Your task to perform on an android device: turn off translation in the chrome app Image 0: 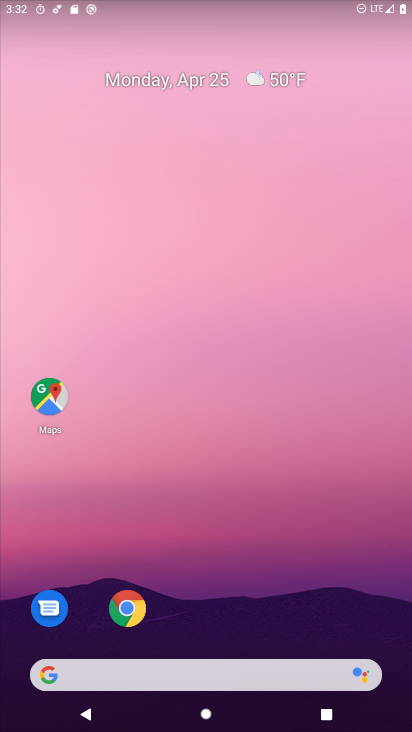
Step 0: click (147, 613)
Your task to perform on an android device: turn off translation in the chrome app Image 1: 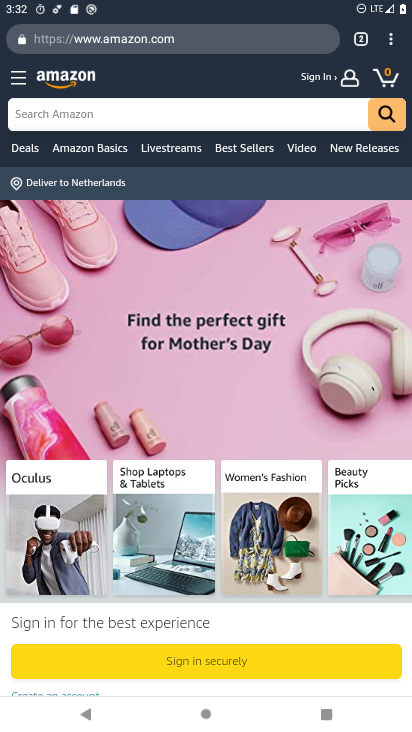
Step 1: click (394, 33)
Your task to perform on an android device: turn off translation in the chrome app Image 2: 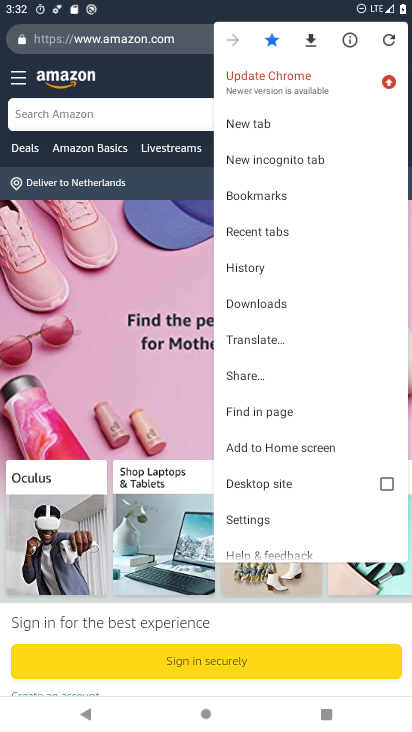
Step 2: click (263, 520)
Your task to perform on an android device: turn off translation in the chrome app Image 3: 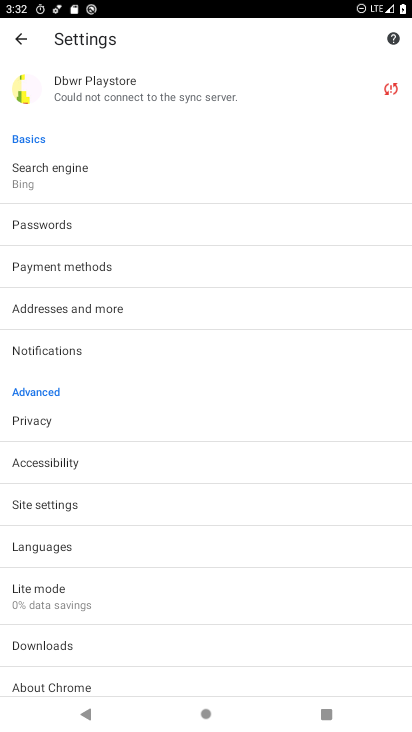
Step 3: click (88, 544)
Your task to perform on an android device: turn off translation in the chrome app Image 4: 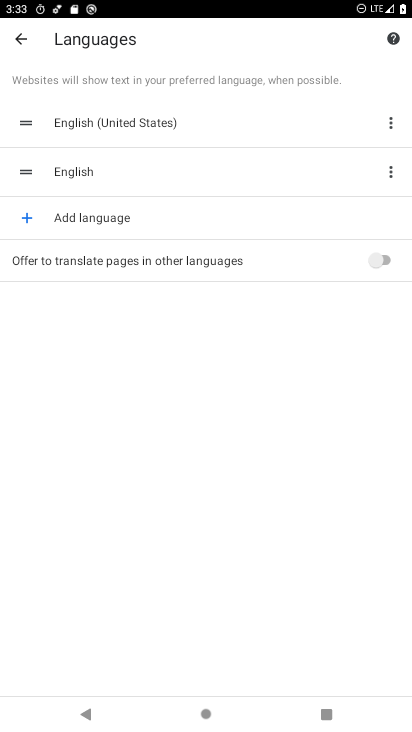
Step 4: task complete